Your task to perform on an android device: find which apps use the phone's location Image 0: 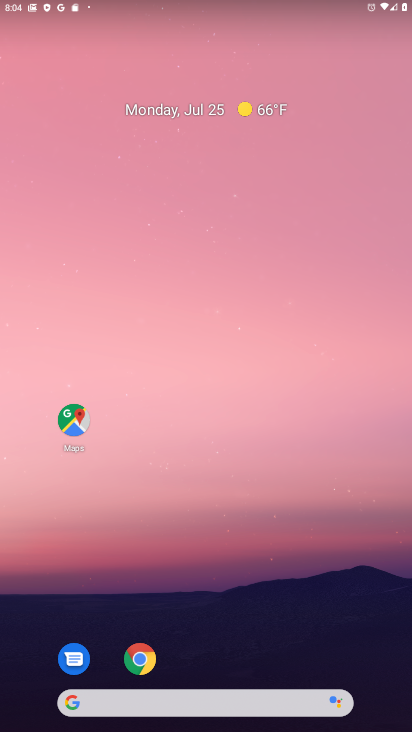
Step 0: drag from (200, 681) to (228, 310)
Your task to perform on an android device: find which apps use the phone's location Image 1: 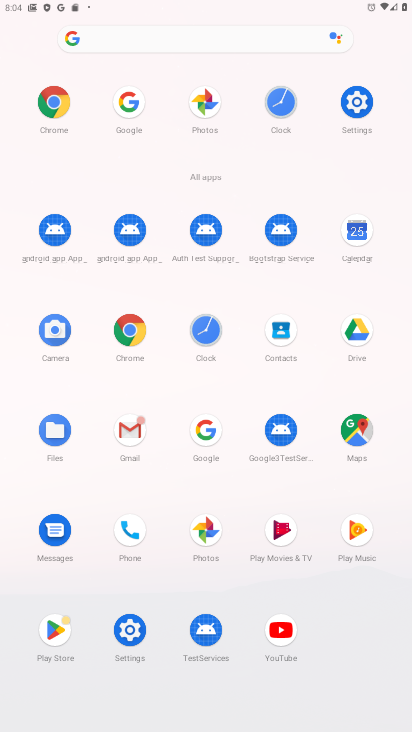
Step 1: click (130, 646)
Your task to perform on an android device: find which apps use the phone's location Image 2: 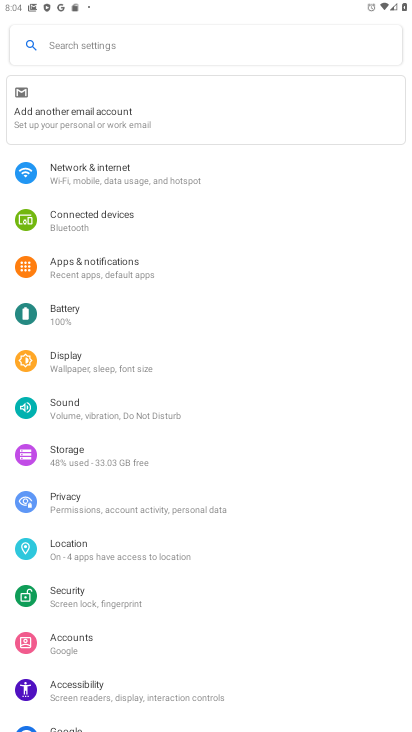
Step 2: click (85, 560)
Your task to perform on an android device: find which apps use the phone's location Image 3: 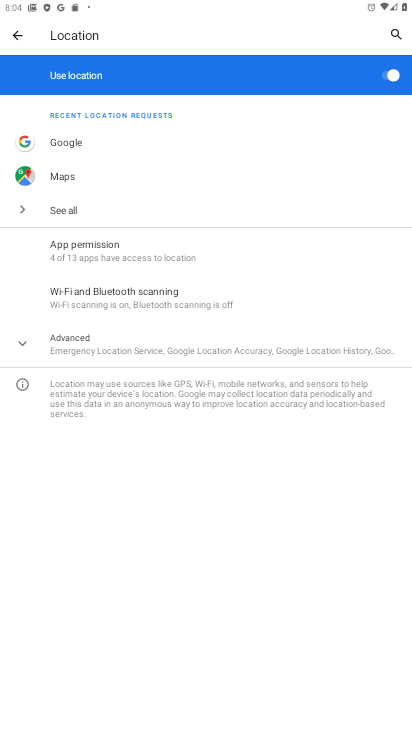
Step 3: click (126, 238)
Your task to perform on an android device: find which apps use the phone's location Image 4: 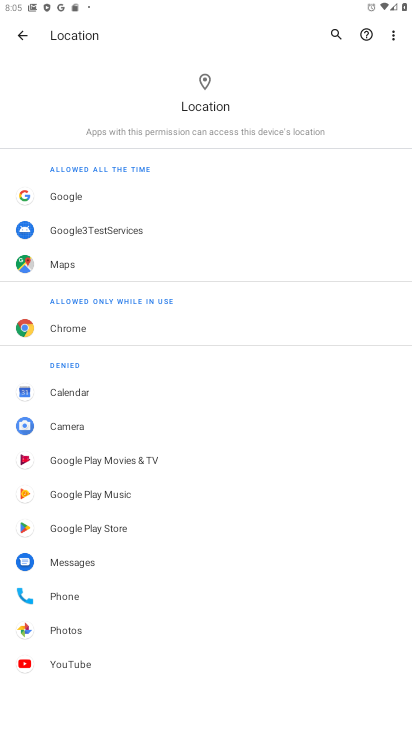
Step 4: task complete